Your task to perform on an android device: Is it going to rain tomorrow? Image 0: 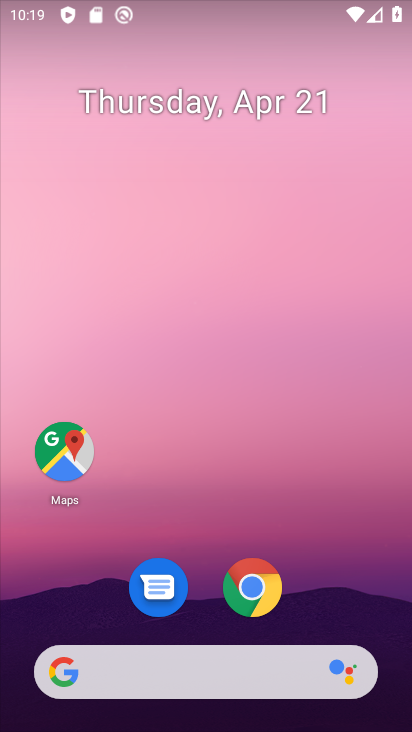
Step 0: drag from (19, 302) to (358, 325)
Your task to perform on an android device: Is it going to rain tomorrow? Image 1: 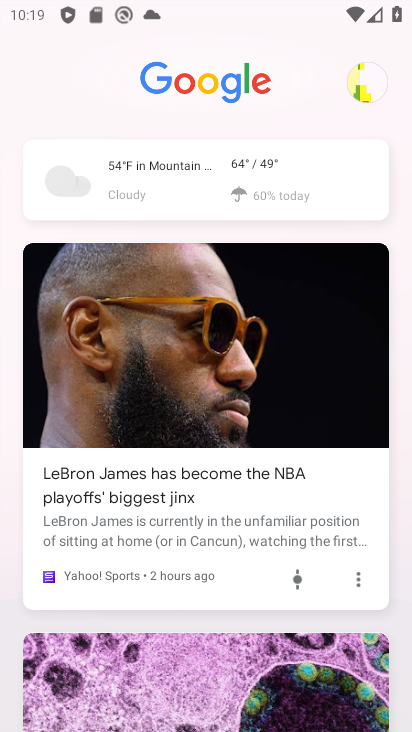
Step 1: click (217, 171)
Your task to perform on an android device: Is it going to rain tomorrow? Image 2: 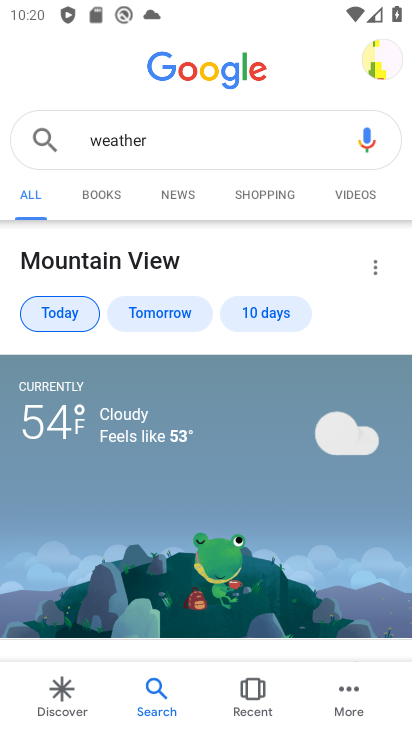
Step 2: click (179, 331)
Your task to perform on an android device: Is it going to rain tomorrow? Image 3: 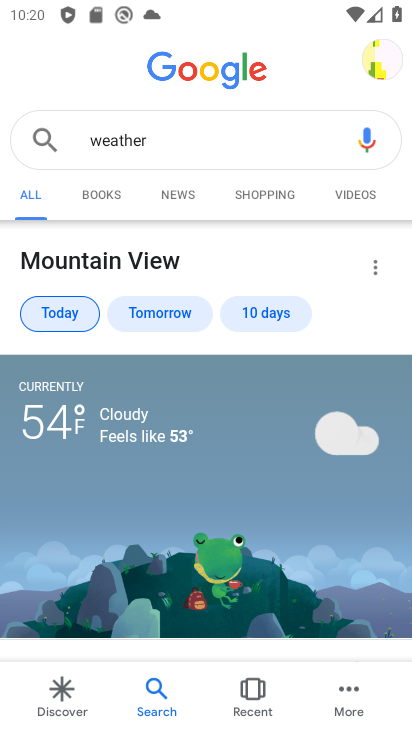
Step 3: click (165, 326)
Your task to perform on an android device: Is it going to rain tomorrow? Image 4: 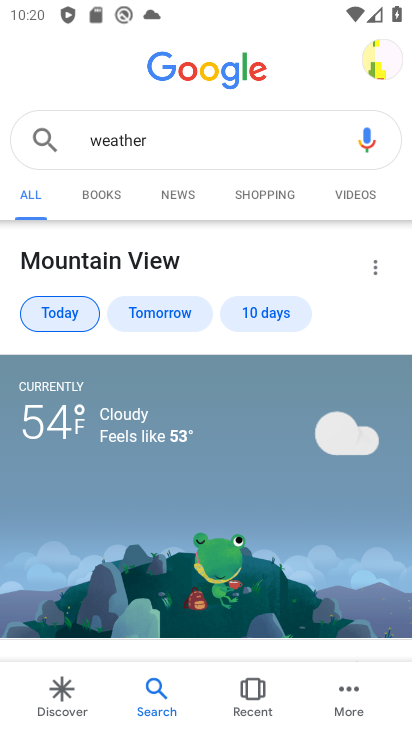
Step 4: click (169, 144)
Your task to perform on an android device: Is it going to rain tomorrow? Image 5: 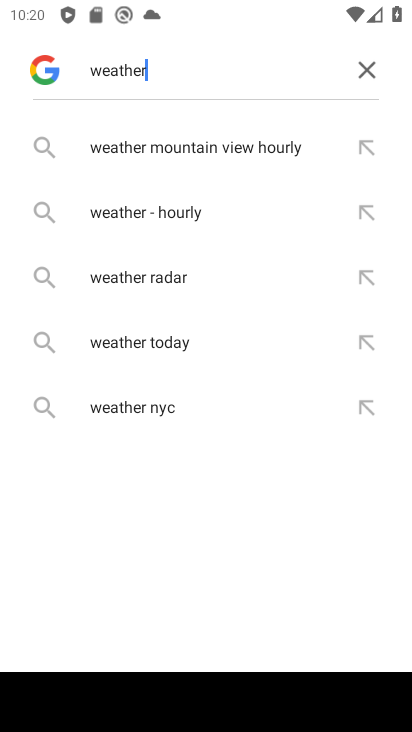
Step 5: type " tomorrow"
Your task to perform on an android device: Is it going to rain tomorrow? Image 6: 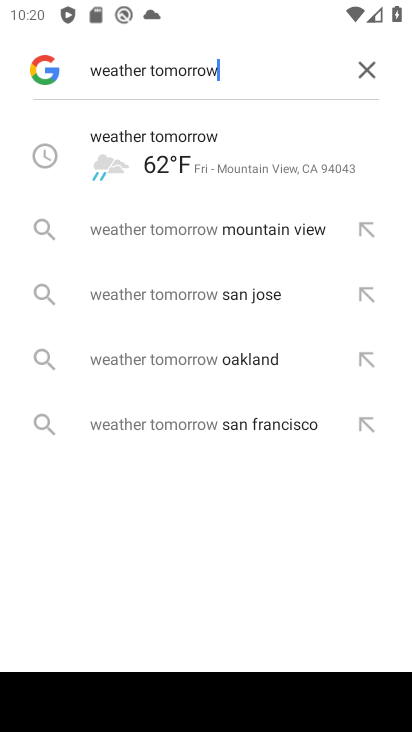
Step 6: click (208, 174)
Your task to perform on an android device: Is it going to rain tomorrow? Image 7: 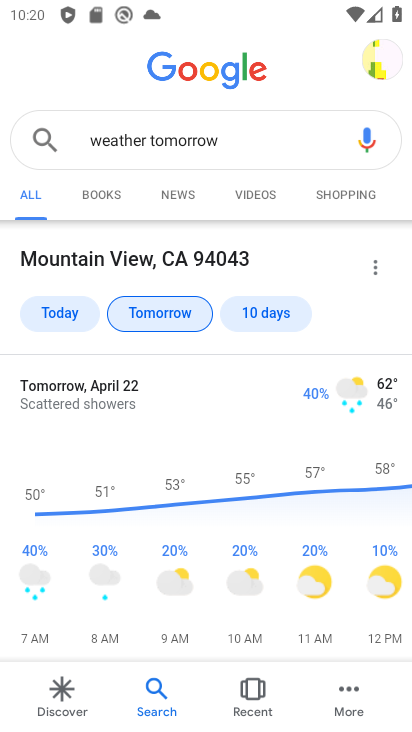
Step 7: task complete